Your task to perform on an android device: Search for seafood restaurants on Google Maps Image 0: 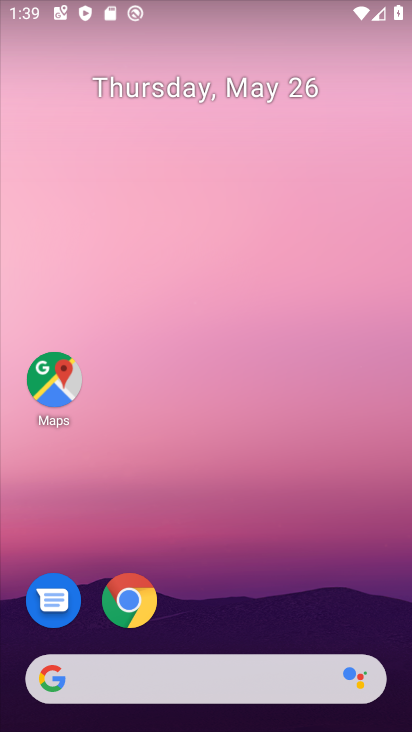
Step 0: click (38, 383)
Your task to perform on an android device: Search for seafood restaurants on Google Maps Image 1: 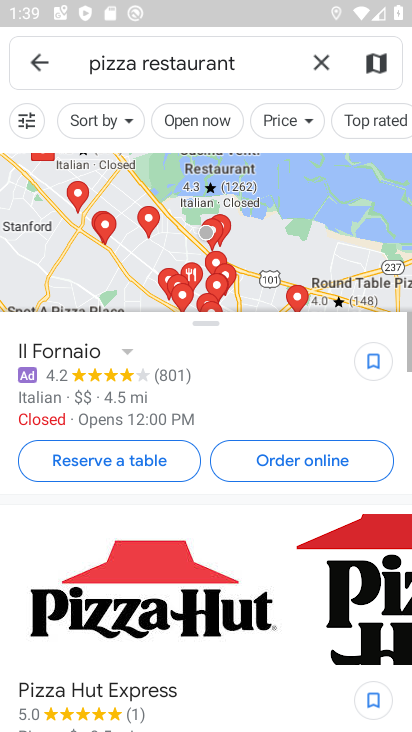
Step 1: click (334, 71)
Your task to perform on an android device: Search for seafood restaurants on Google Maps Image 2: 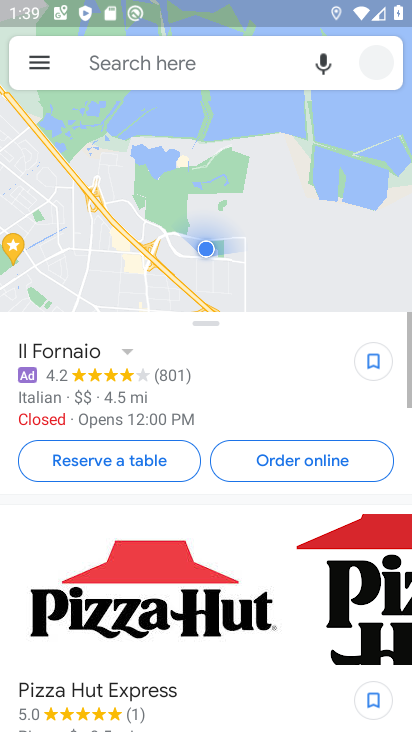
Step 2: click (328, 70)
Your task to perform on an android device: Search for seafood restaurants on Google Maps Image 3: 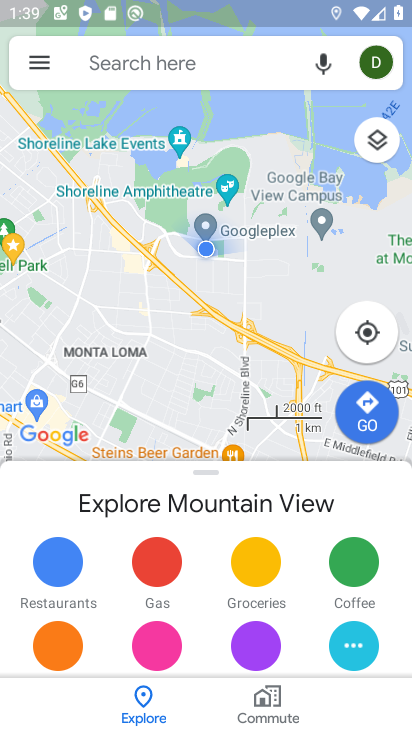
Step 3: click (228, 56)
Your task to perform on an android device: Search for seafood restaurants on Google Maps Image 4: 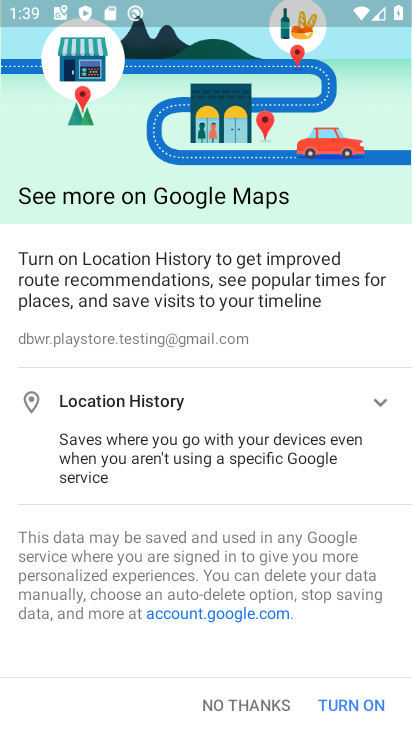
Step 4: press back button
Your task to perform on an android device: Search for seafood restaurants on Google Maps Image 5: 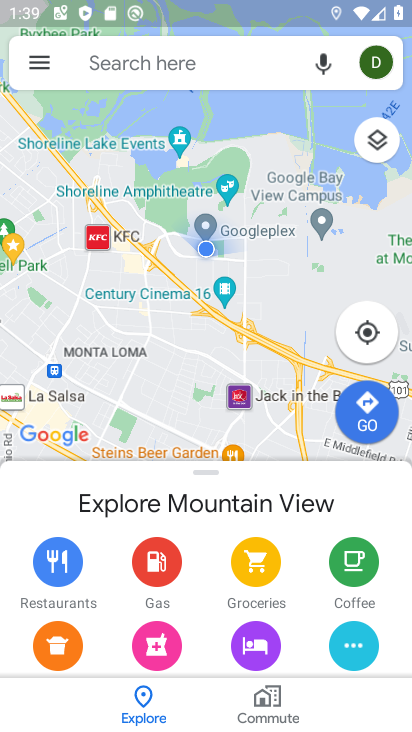
Step 5: click (156, 52)
Your task to perform on an android device: Search for seafood restaurants on Google Maps Image 6: 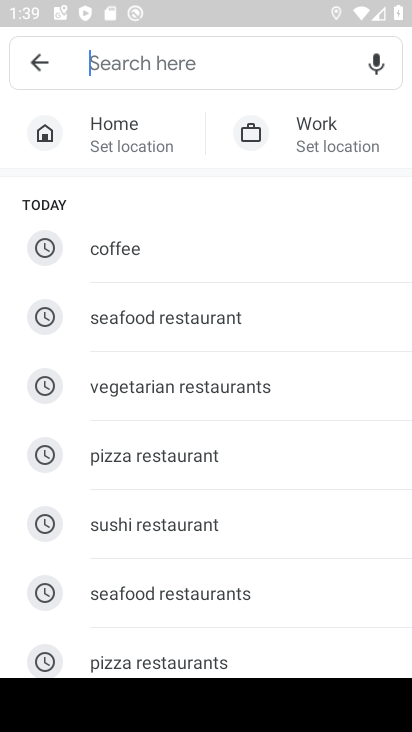
Step 6: click (225, 322)
Your task to perform on an android device: Search for seafood restaurants on Google Maps Image 7: 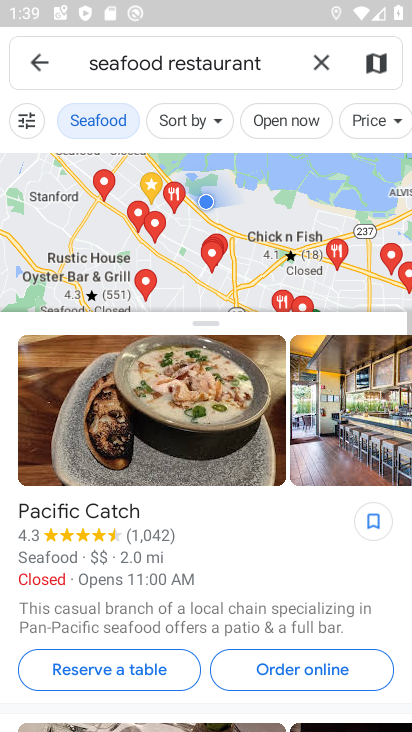
Step 7: task complete